Your task to perform on an android device: open app "Truecaller" Image 0: 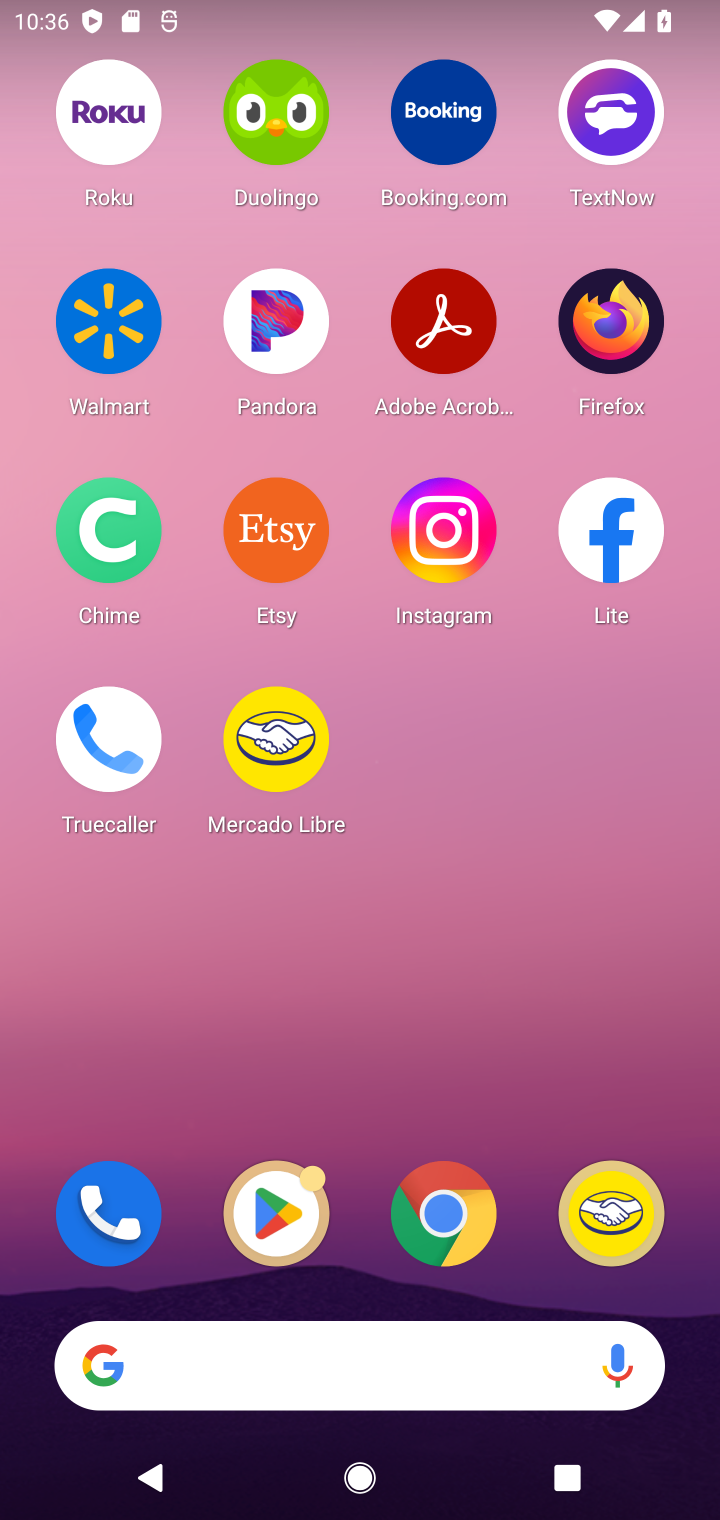
Step 0: click (132, 751)
Your task to perform on an android device: open app "Truecaller" Image 1: 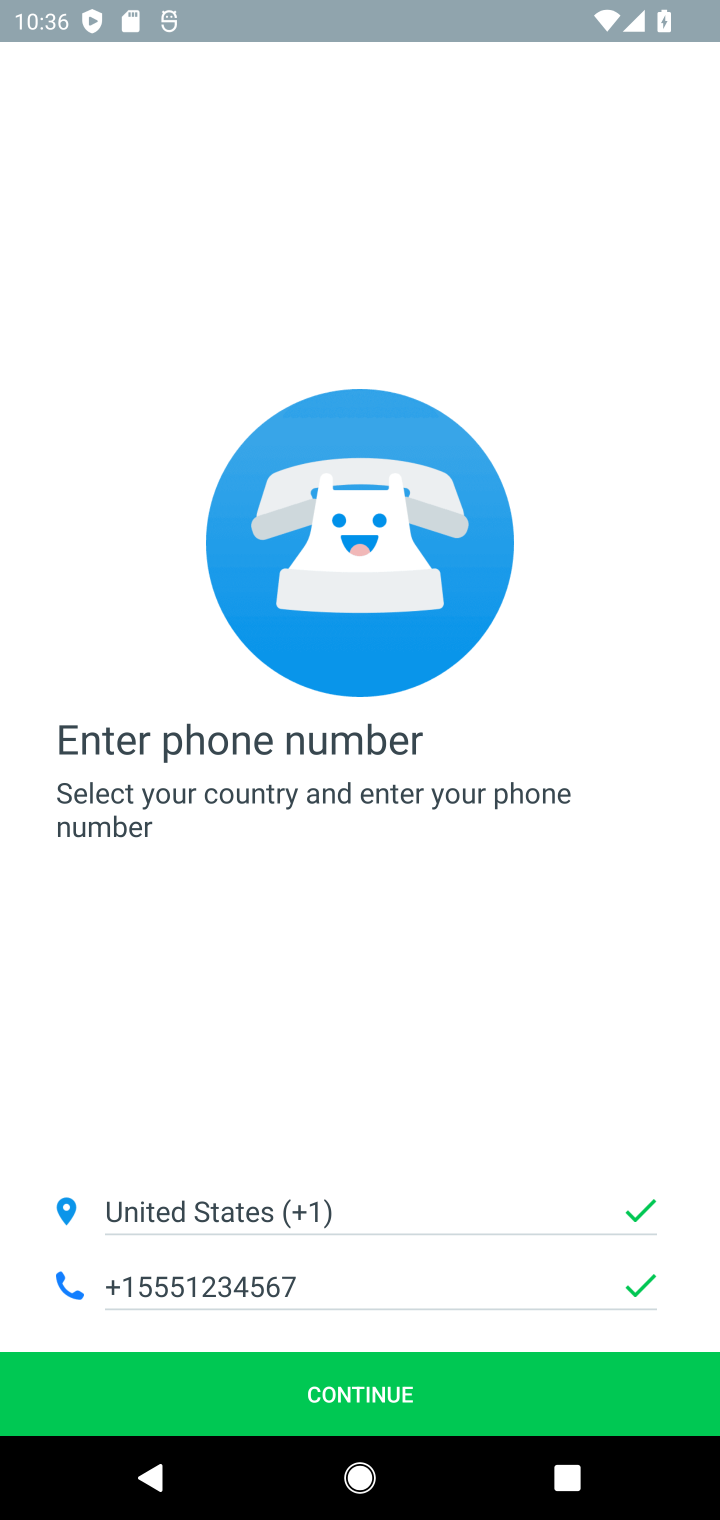
Step 1: click (496, 1395)
Your task to perform on an android device: open app "Truecaller" Image 2: 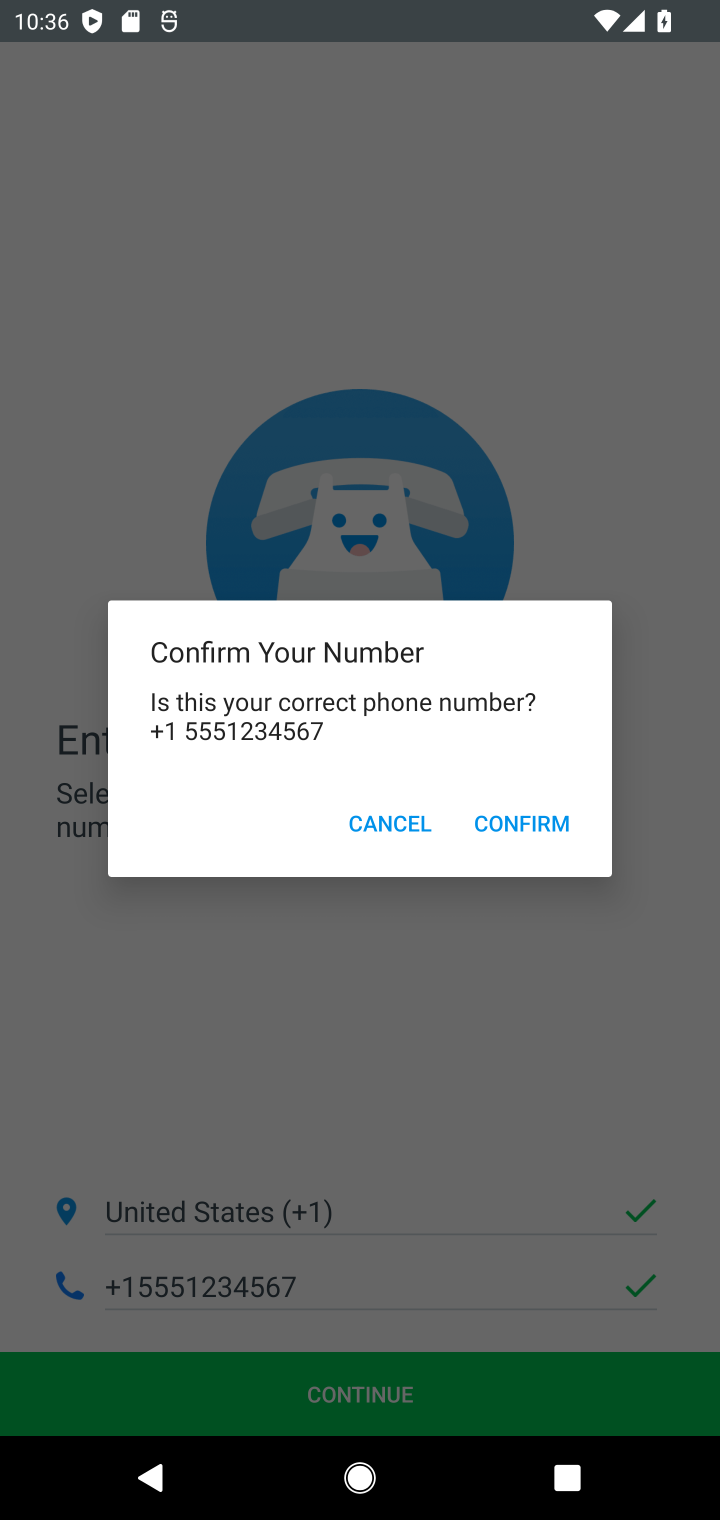
Step 2: click (510, 824)
Your task to perform on an android device: open app "Truecaller" Image 3: 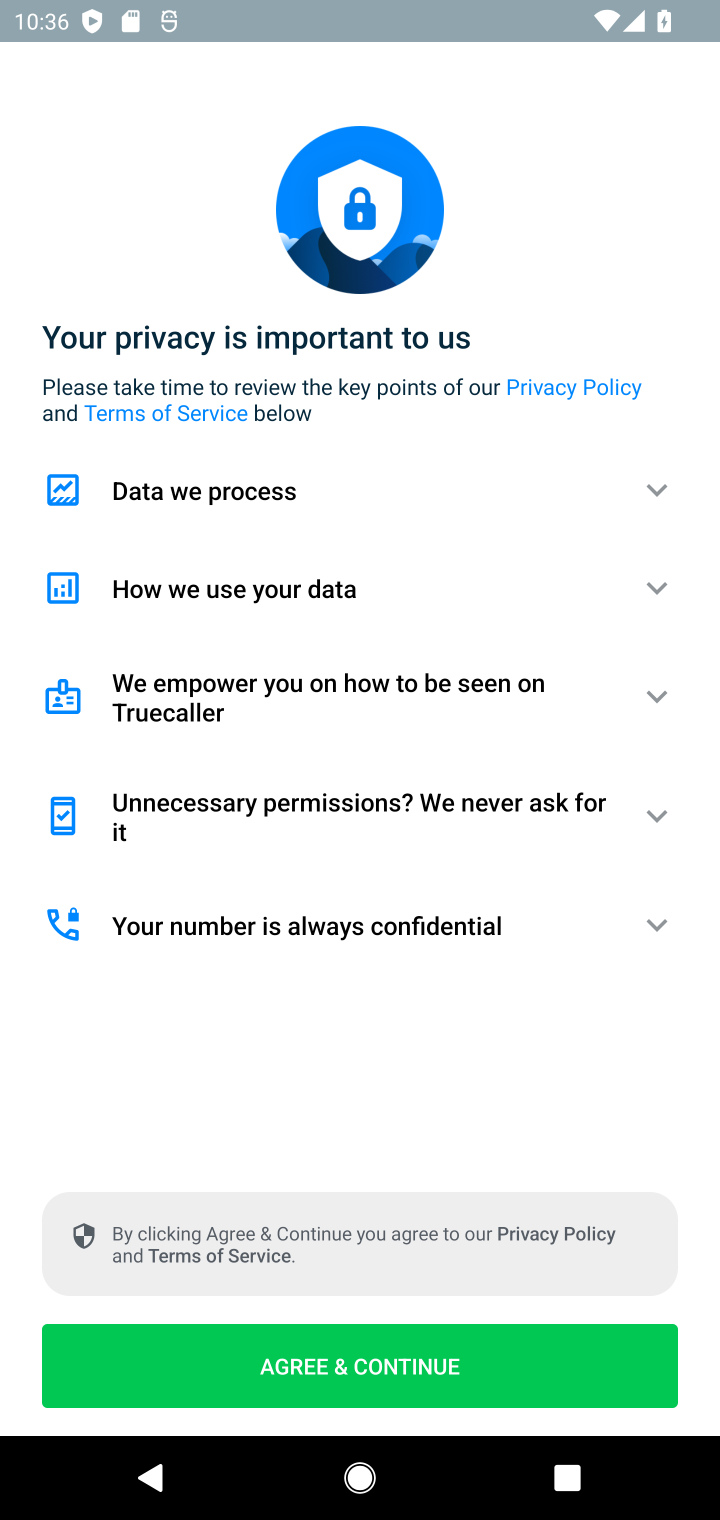
Step 3: task complete